Your task to perform on an android device: check google app version Image 0: 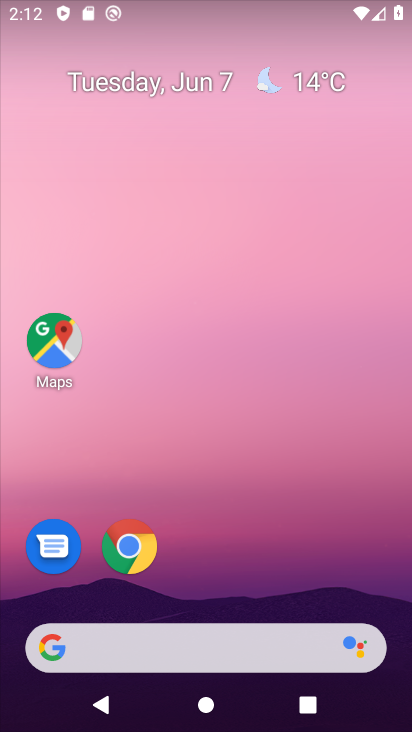
Step 0: click (177, 648)
Your task to perform on an android device: check google app version Image 1: 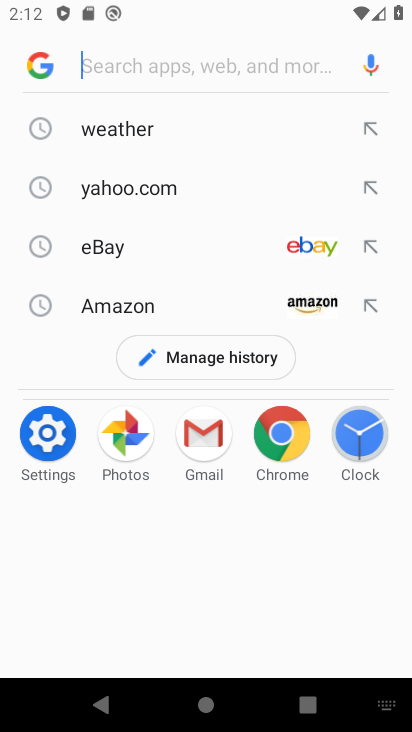
Step 1: click (25, 62)
Your task to perform on an android device: check google app version Image 2: 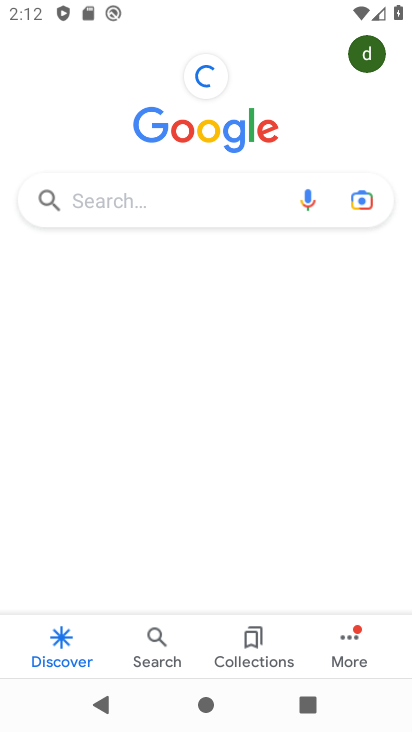
Step 2: click (370, 650)
Your task to perform on an android device: check google app version Image 3: 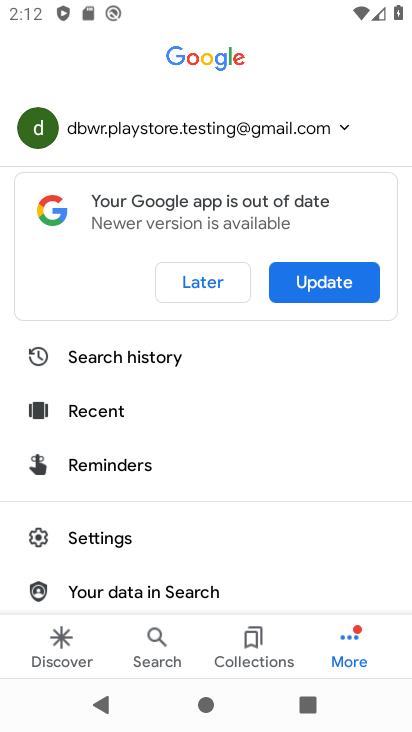
Step 3: click (144, 523)
Your task to perform on an android device: check google app version Image 4: 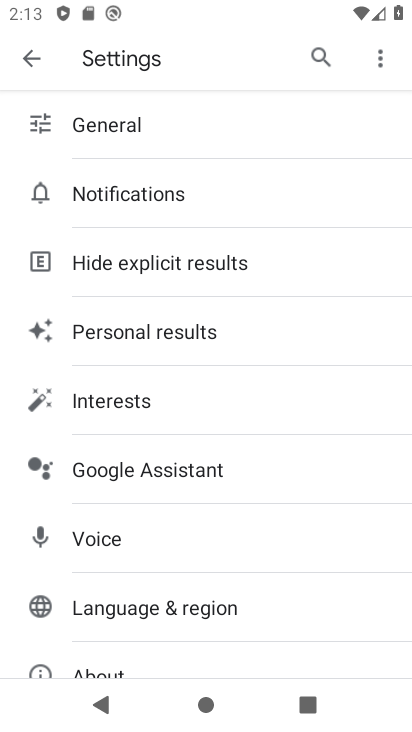
Step 4: click (113, 669)
Your task to perform on an android device: check google app version Image 5: 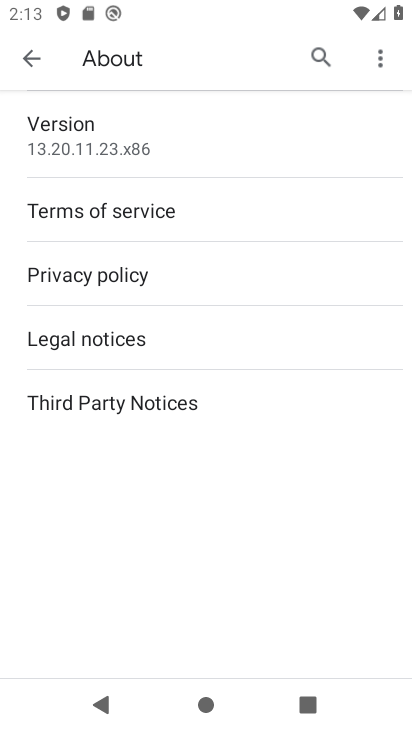
Step 5: task complete